Your task to perform on an android device: Go to Yahoo.com Image 0: 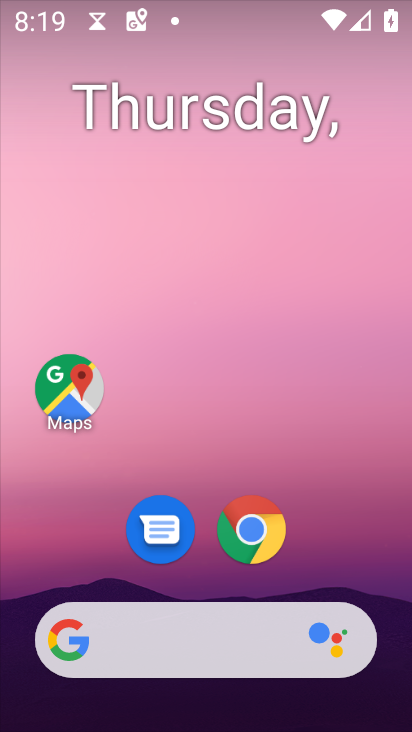
Step 0: press home button
Your task to perform on an android device: Go to Yahoo.com Image 1: 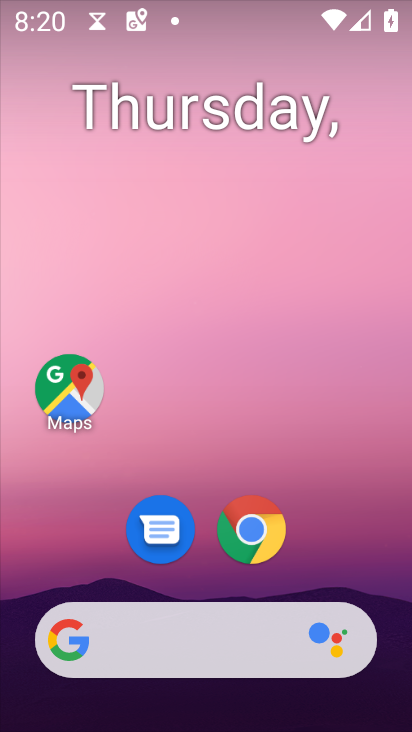
Step 1: drag from (202, 581) to (234, 92)
Your task to perform on an android device: Go to Yahoo.com Image 2: 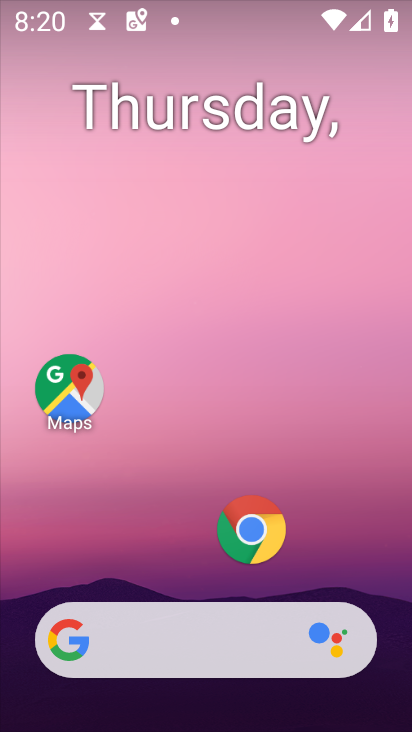
Step 2: click (248, 524)
Your task to perform on an android device: Go to Yahoo.com Image 3: 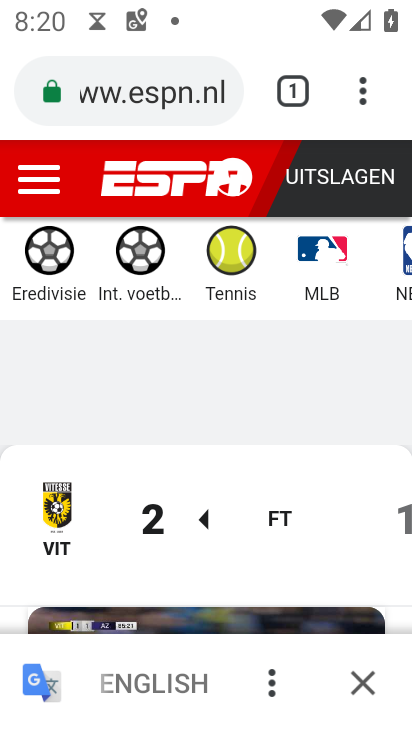
Step 3: click (286, 86)
Your task to perform on an android device: Go to Yahoo.com Image 4: 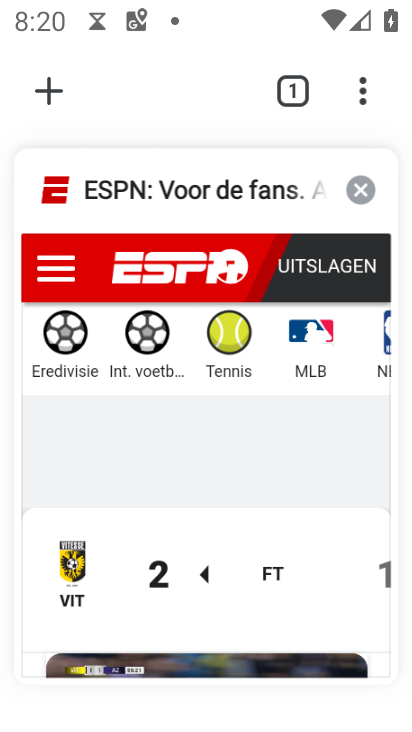
Step 4: click (361, 187)
Your task to perform on an android device: Go to Yahoo.com Image 5: 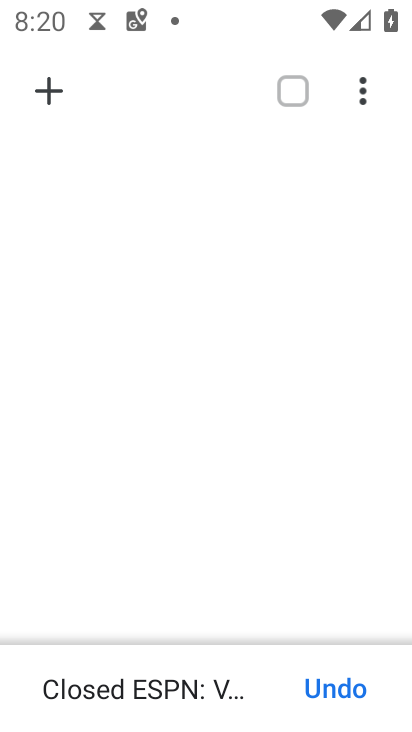
Step 5: click (54, 96)
Your task to perform on an android device: Go to Yahoo.com Image 6: 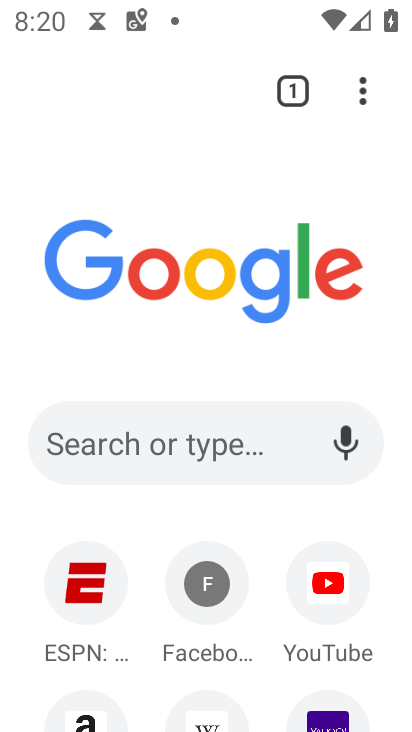
Step 6: drag from (266, 543) to (295, 315)
Your task to perform on an android device: Go to Yahoo.com Image 7: 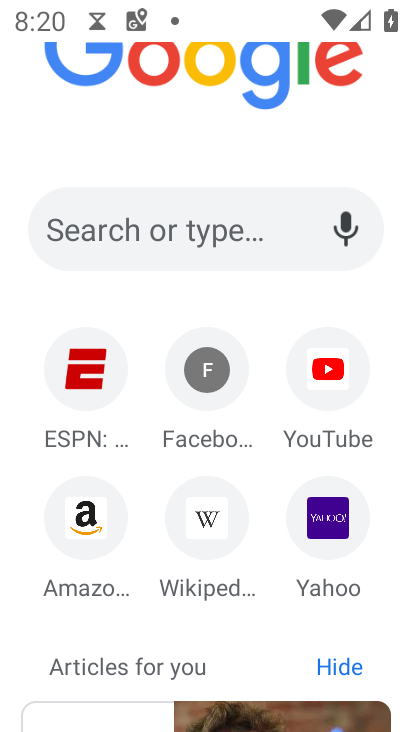
Step 7: click (327, 512)
Your task to perform on an android device: Go to Yahoo.com Image 8: 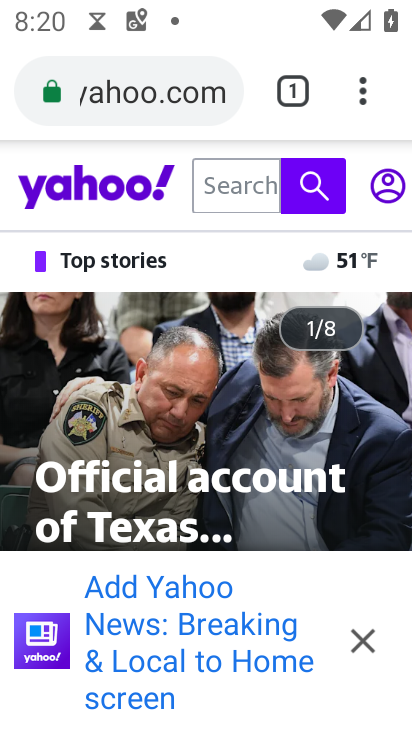
Step 8: click (360, 635)
Your task to perform on an android device: Go to Yahoo.com Image 9: 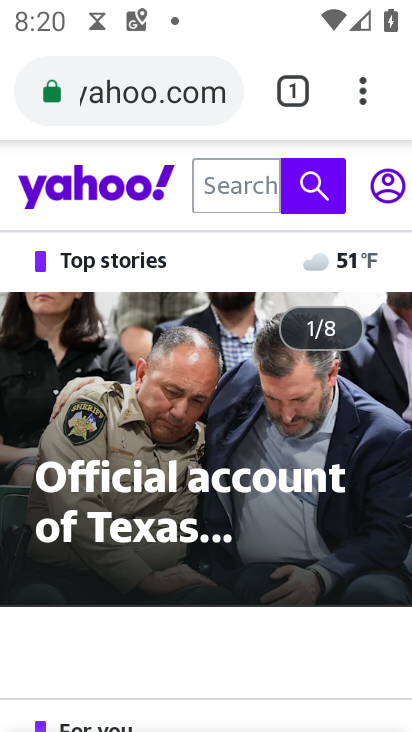
Step 9: task complete